Your task to perform on an android device: Open the phone app and click the voicemail tab. Image 0: 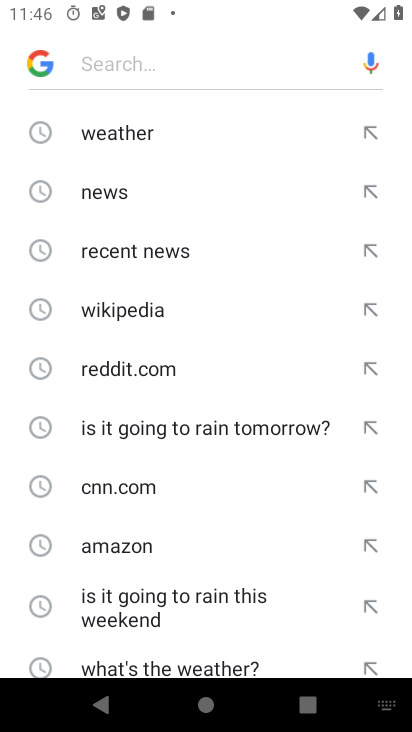
Step 0: press home button
Your task to perform on an android device: Open the phone app and click the voicemail tab. Image 1: 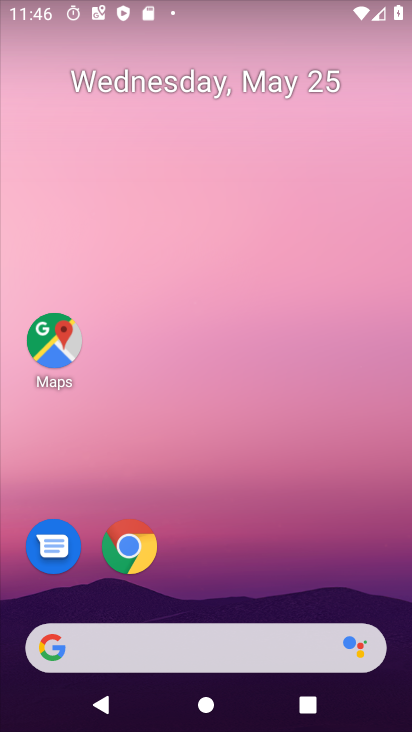
Step 1: drag from (230, 563) to (278, 13)
Your task to perform on an android device: Open the phone app and click the voicemail tab. Image 2: 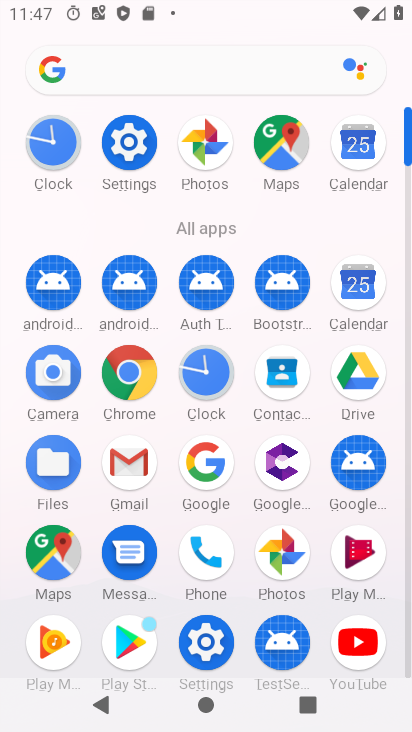
Step 2: click (205, 549)
Your task to perform on an android device: Open the phone app and click the voicemail tab. Image 3: 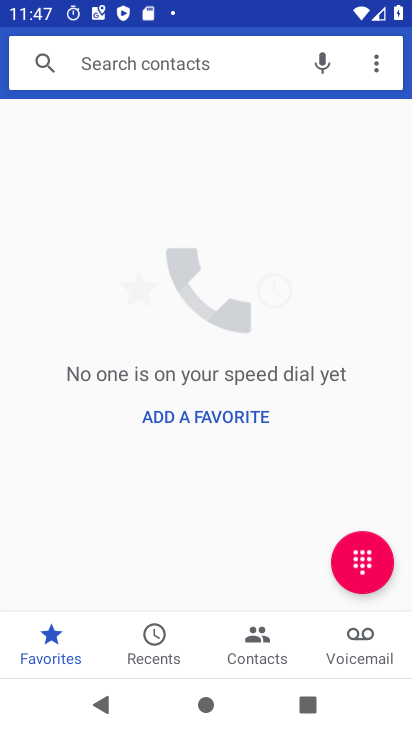
Step 3: click (350, 633)
Your task to perform on an android device: Open the phone app and click the voicemail tab. Image 4: 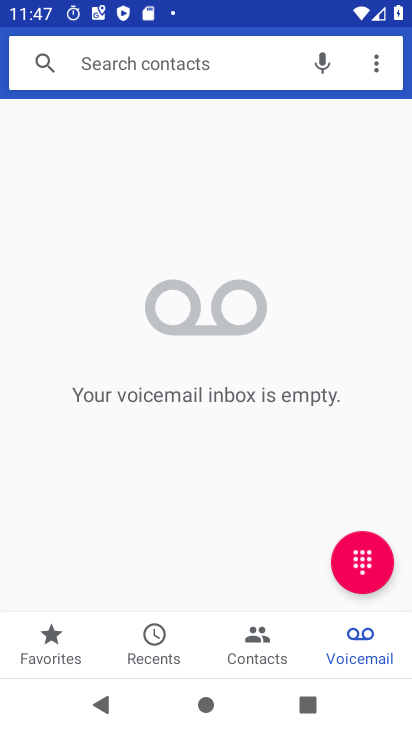
Step 4: task complete